Your task to perform on an android device: Go to network settings Image 0: 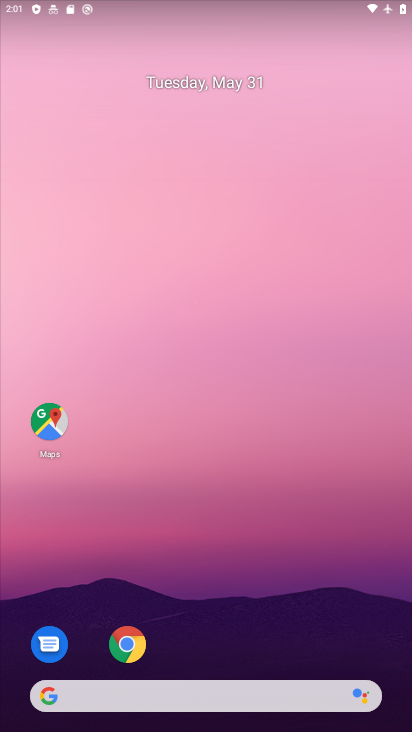
Step 0: drag from (267, 646) to (270, 102)
Your task to perform on an android device: Go to network settings Image 1: 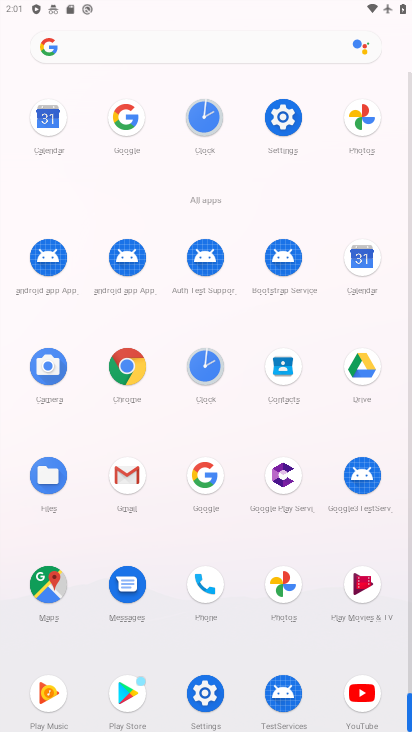
Step 1: click (279, 115)
Your task to perform on an android device: Go to network settings Image 2: 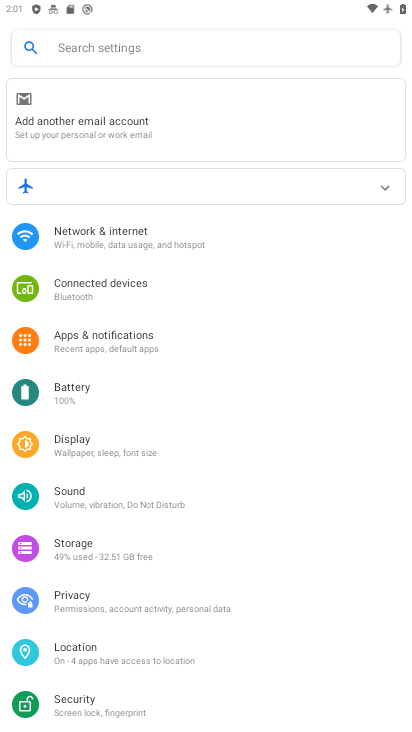
Step 2: click (132, 248)
Your task to perform on an android device: Go to network settings Image 3: 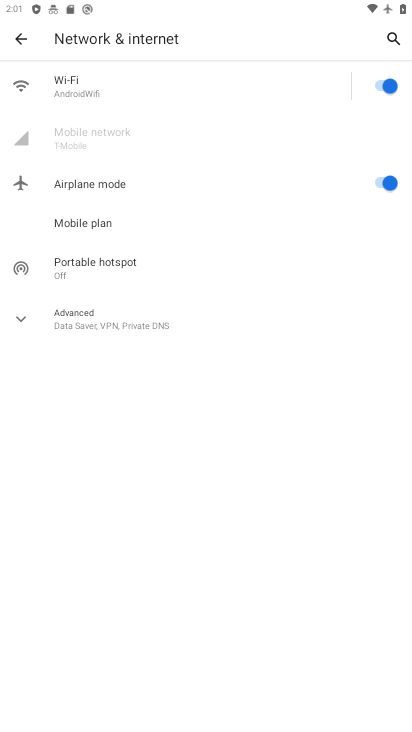
Step 3: click (115, 347)
Your task to perform on an android device: Go to network settings Image 4: 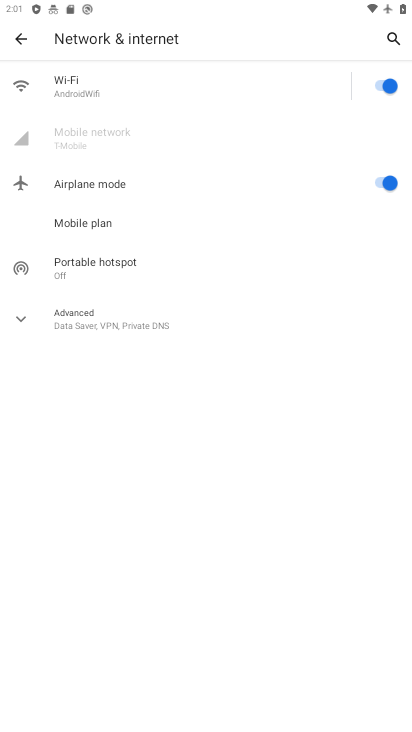
Step 4: click (138, 318)
Your task to perform on an android device: Go to network settings Image 5: 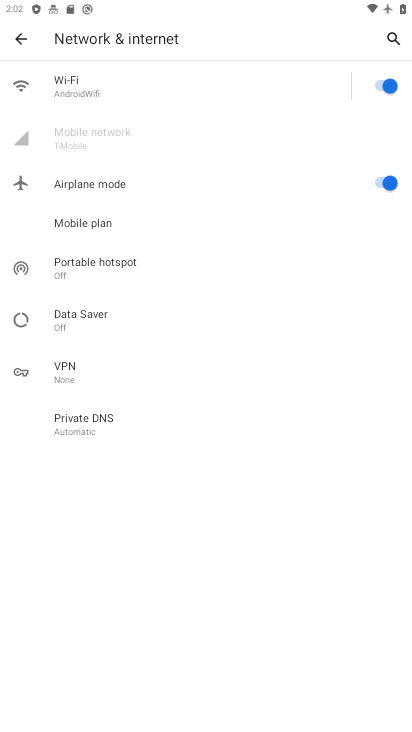
Step 5: task complete